Your task to perform on an android device: toggle translation in the chrome app Image 0: 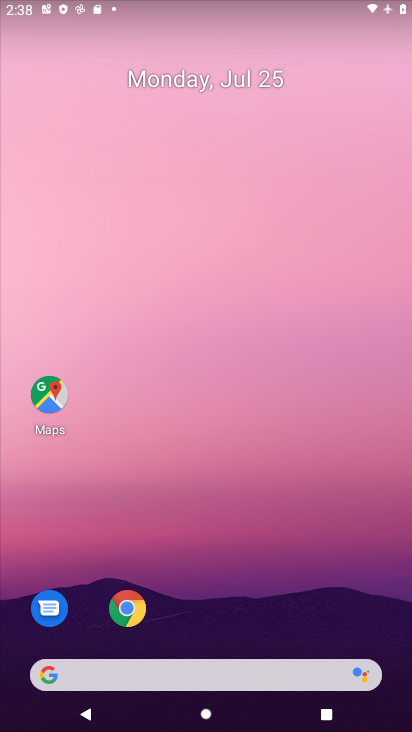
Step 0: drag from (249, 633) to (308, 116)
Your task to perform on an android device: toggle translation in the chrome app Image 1: 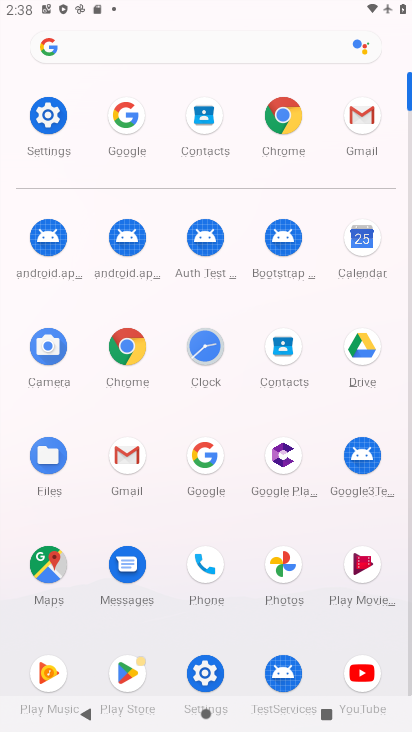
Step 1: click (141, 370)
Your task to perform on an android device: toggle translation in the chrome app Image 2: 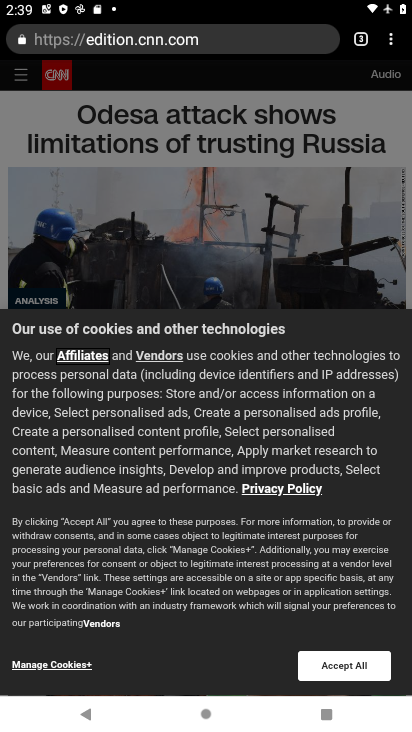
Step 2: click (395, 40)
Your task to perform on an android device: toggle translation in the chrome app Image 3: 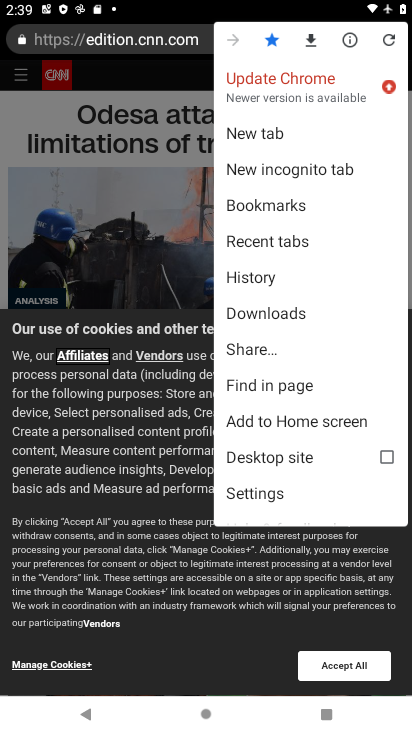
Step 3: task complete